Your task to perform on an android device: Search for vegetarian restaurants on Maps Image 0: 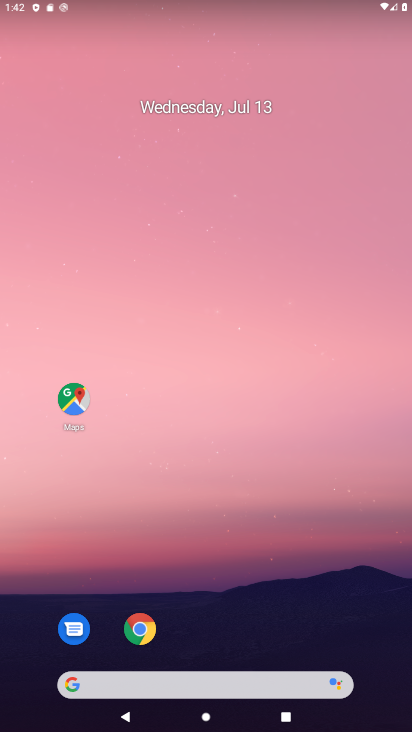
Step 0: drag from (233, 627) to (199, 27)
Your task to perform on an android device: Search for vegetarian restaurants on Maps Image 1: 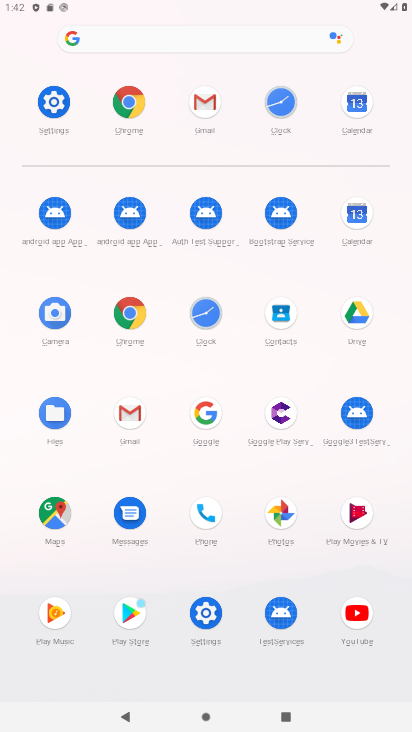
Step 1: click (66, 516)
Your task to perform on an android device: Search for vegetarian restaurants on Maps Image 2: 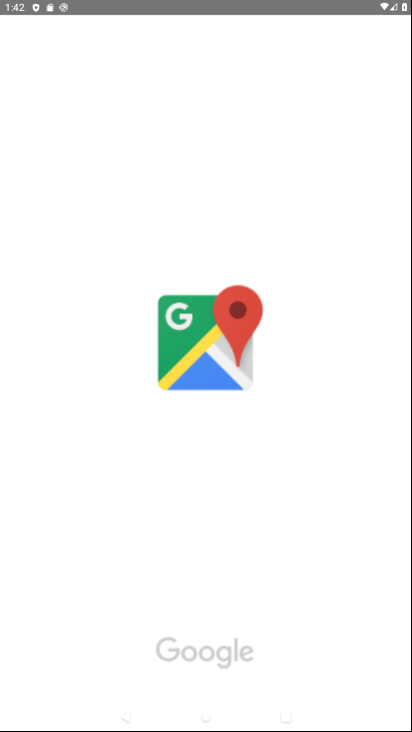
Step 2: task complete